Your task to perform on an android device: Turn on the flashlight Image 0: 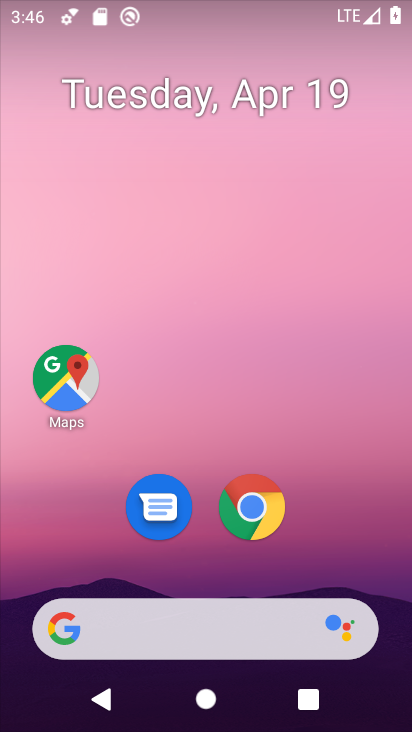
Step 0: drag from (362, 149) to (361, 81)
Your task to perform on an android device: Turn on the flashlight Image 1: 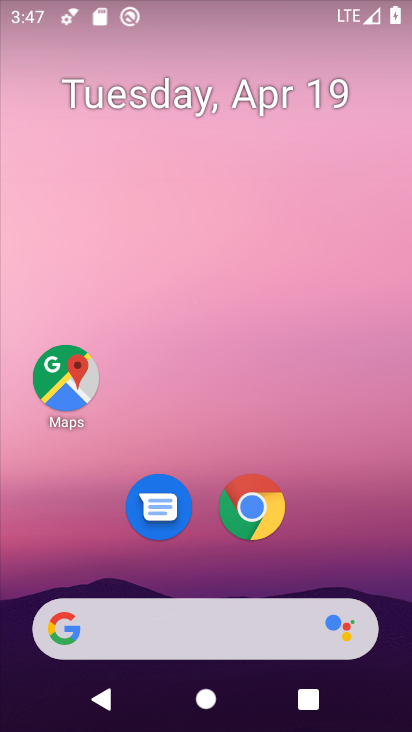
Step 1: drag from (353, 577) to (356, 31)
Your task to perform on an android device: Turn on the flashlight Image 2: 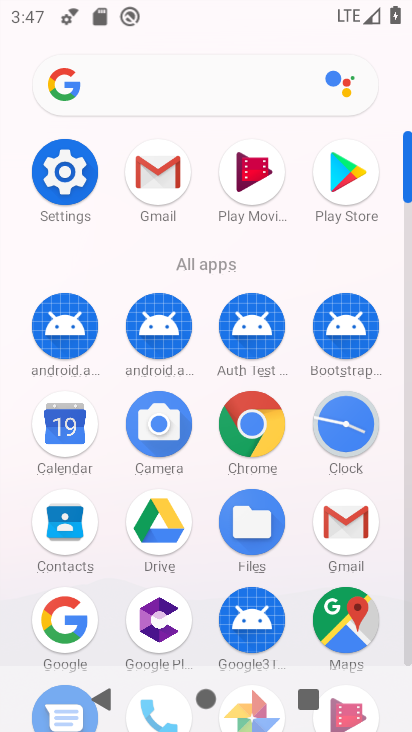
Step 2: click (76, 181)
Your task to perform on an android device: Turn on the flashlight Image 3: 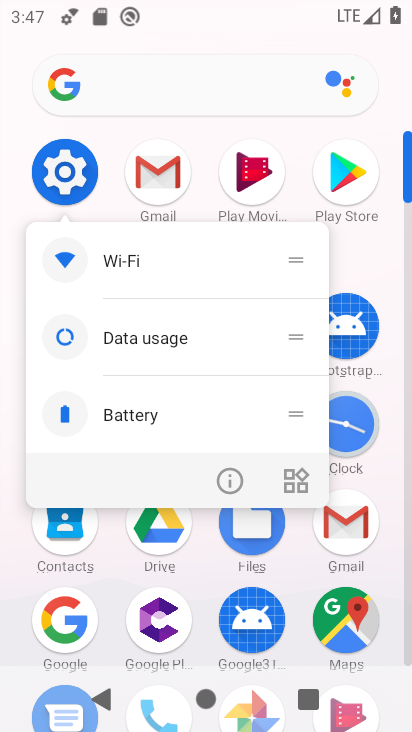
Step 3: click (78, 180)
Your task to perform on an android device: Turn on the flashlight Image 4: 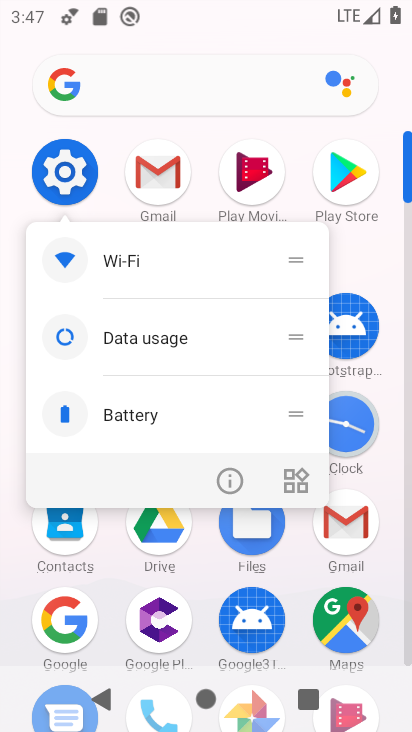
Step 4: click (63, 184)
Your task to perform on an android device: Turn on the flashlight Image 5: 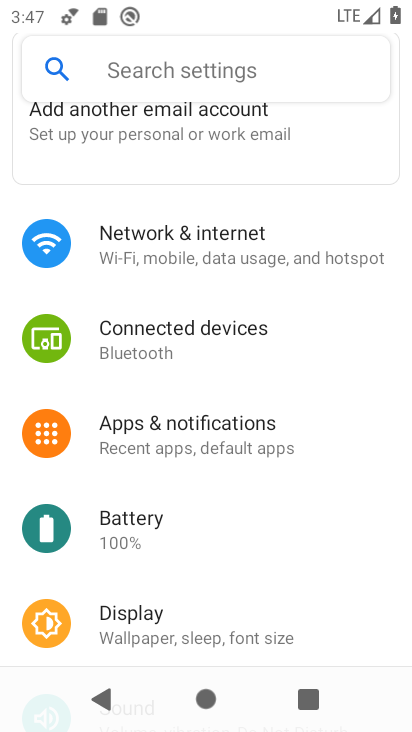
Step 5: task complete